Your task to perform on an android device: change your default location settings in chrome Image 0: 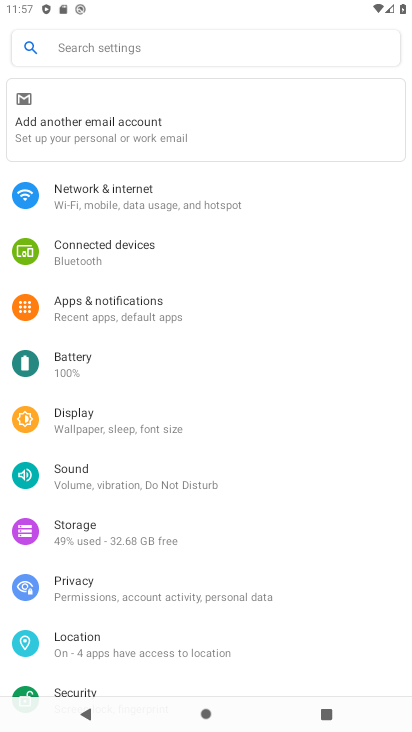
Step 0: press home button
Your task to perform on an android device: change your default location settings in chrome Image 1: 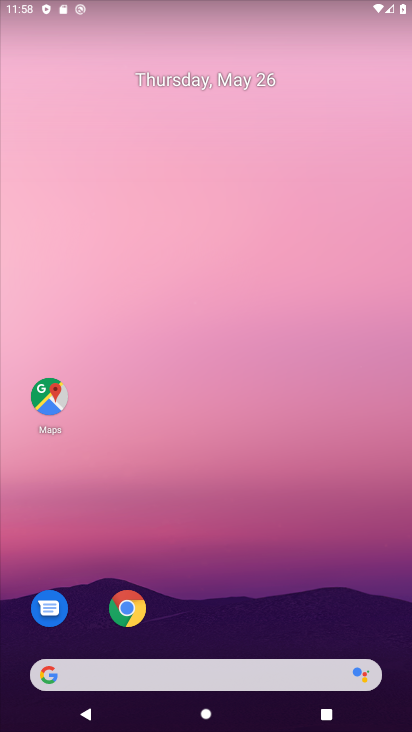
Step 1: click (131, 602)
Your task to perform on an android device: change your default location settings in chrome Image 2: 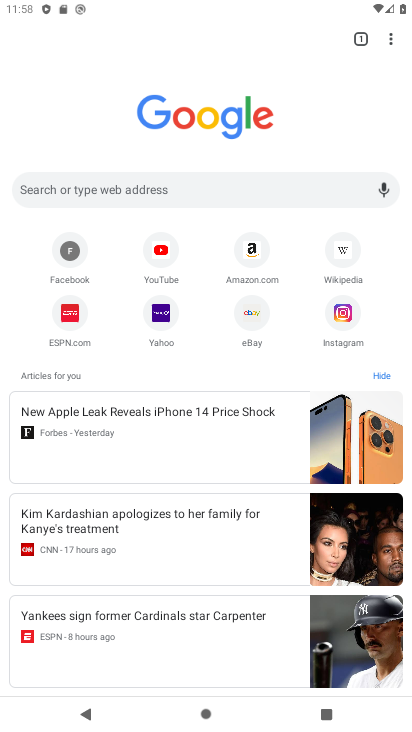
Step 2: drag from (390, 37) to (264, 323)
Your task to perform on an android device: change your default location settings in chrome Image 3: 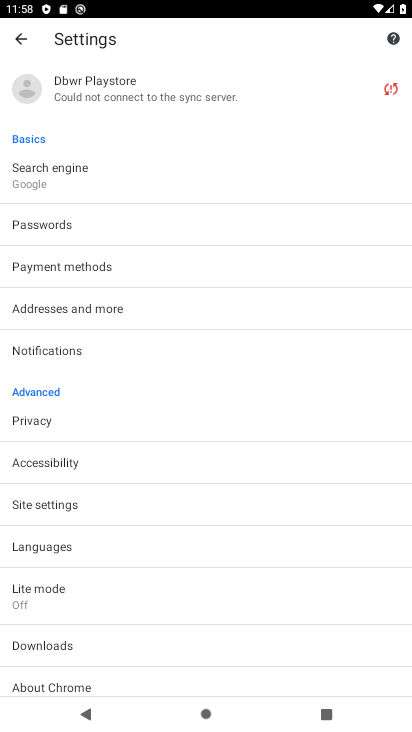
Step 3: click (39, 506)
Your task to perform on an android device: change your default location settings in chrome Image 4: 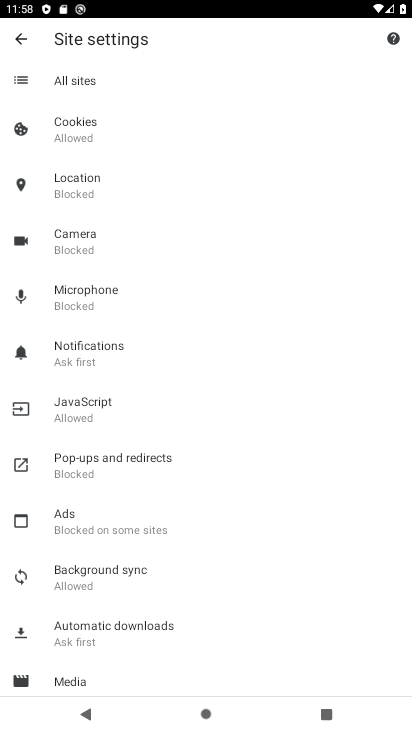
Step 4: click (87, 185)
Your task to perform on an android device: change your default location settings in chrome Image 5: 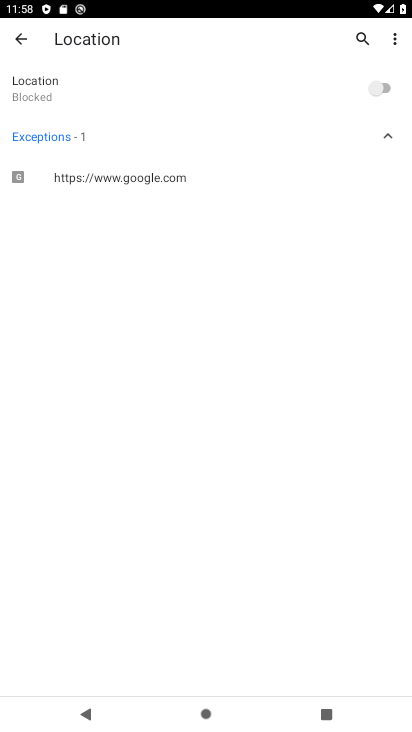
Step 5: click (387, 91)
Your task to perform on an android device: change your default location settings in chrome Image 6: 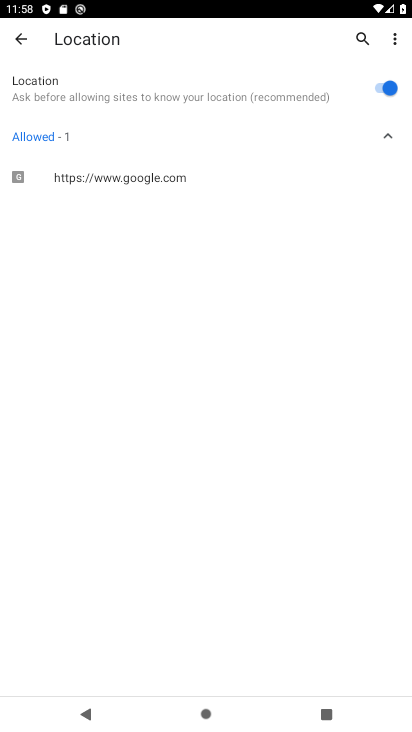
Step 6: task complete